Your task to perform on an android device: Search for sushi restaurants on Maps Image 0: 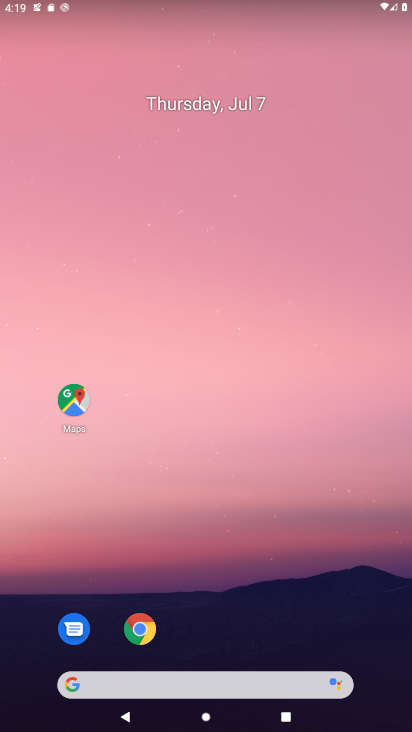
Step 0: click (73, 414)
Your task to perform on an android device: Search for sushi restaurants on Maps Image 1: 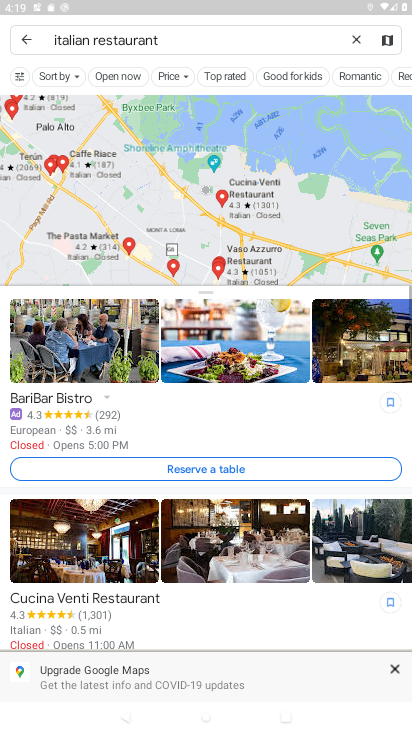
Step 1: click (355, 41)
Your task to perform on an android device: Search for sushi restaurants on Maps Image 2: 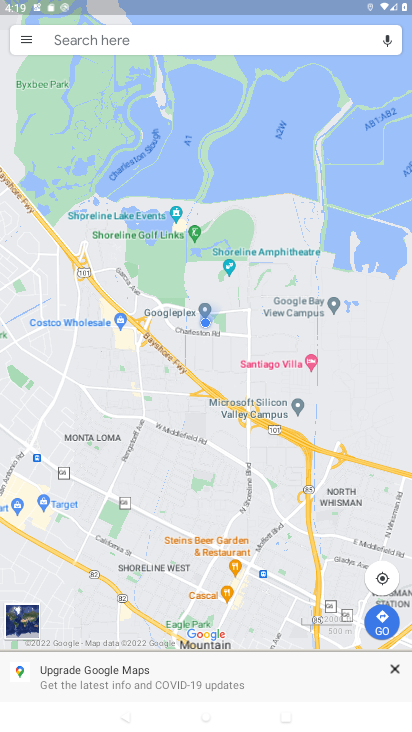
Step 2: click (162, 46)
Your task to perform on an android device: Search for sushi restaurants on Maps Image 3: 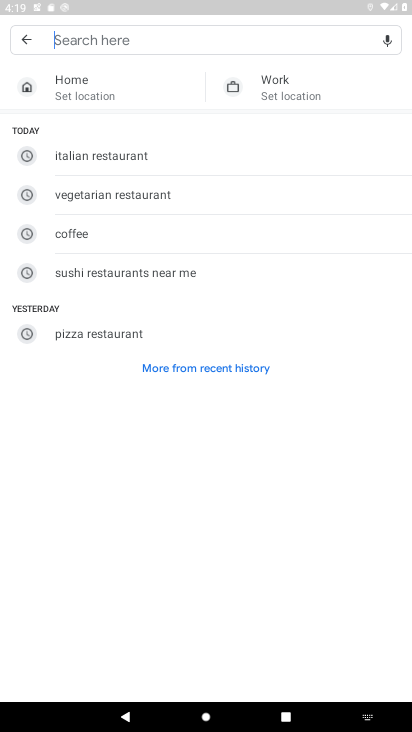
Step 3: type "sushi restaurants"
Your task to perform on an android device: Search for sushi restaurants on Maps Image 4: 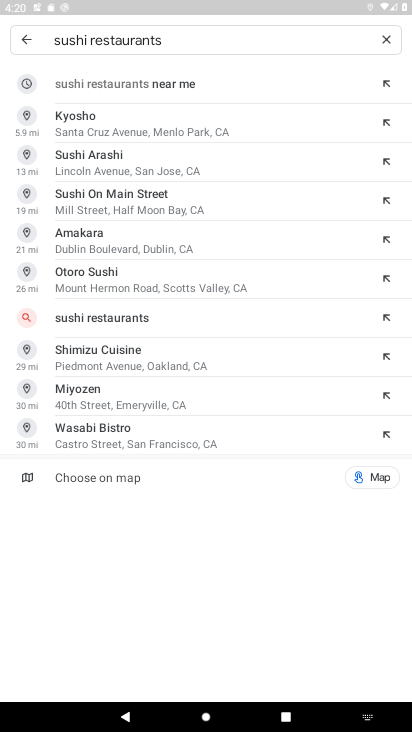
Step 4: click (149, 83)
Your task to perform on an android device: Search for sushi restaurants on Maps Image 5: 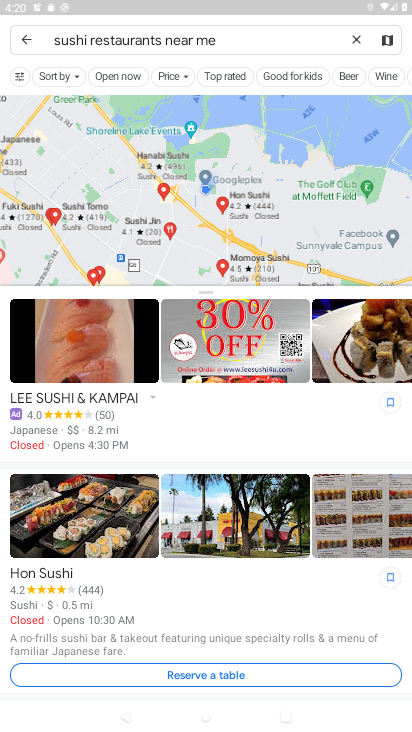
Step 5: task complete